Your task to perform on an android device: turn on priority inbox in the gmail app Image 0: 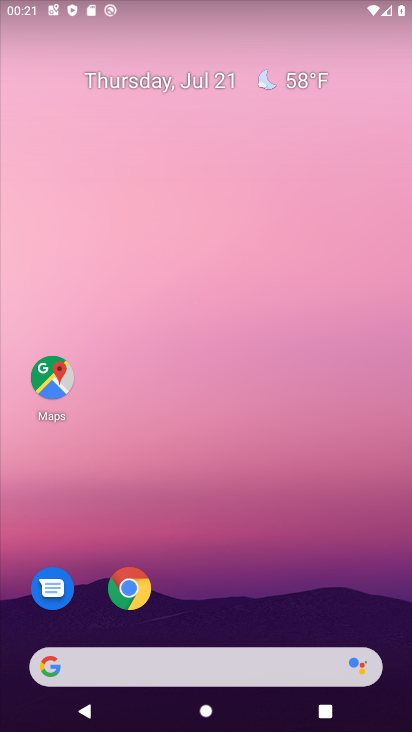
Step 0: drag from (252, 606) to (217, 172)
Your task to perform on an android device: turn on priority inbox in the gmail app Image 1: 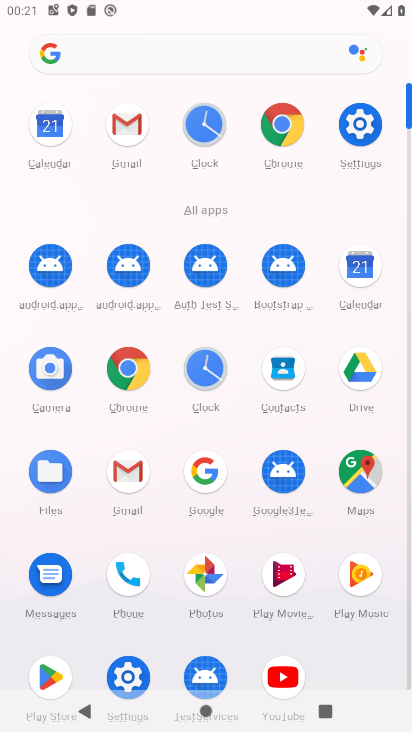
Step 1: click (134, 481)
Your task to perform on an android device: turn on priority inbox in the gmail app Image 2: 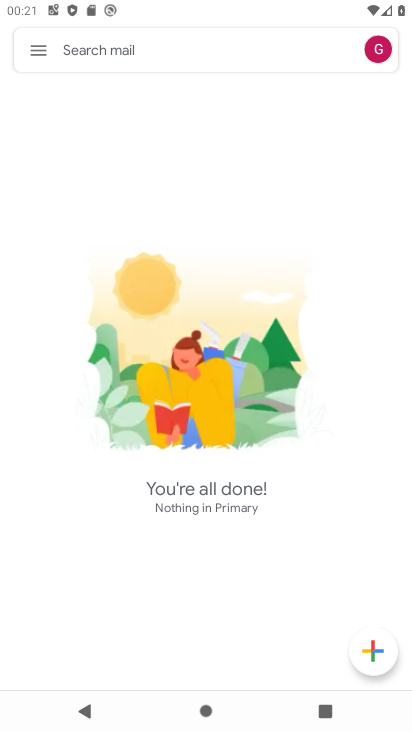
Step 2: click (42, 52)
Your task to perform on an android device: turn on priority inbox in the gmail app Image 3: 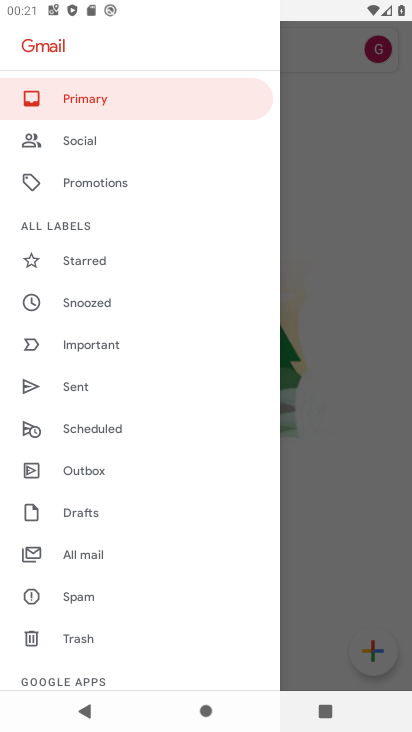
Step 3: drag from (103, 486) to (113, 358)
Your task to perform on an android device: turn on priority inbox in the gmail app Image 4: 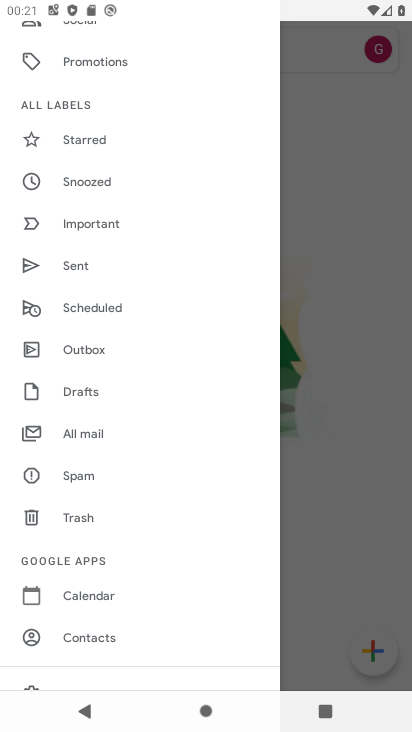
Step 4: drag from (106, 628) to (138, 294)
Your task to perform on an android device: turn on priority inbox in the gmail app Image 5: 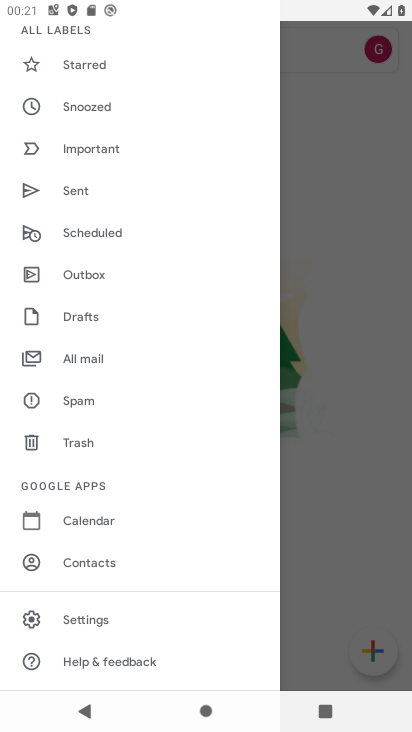
Step 5: click (94, 622)
Your task to perform on an android device: turn on priority inbox in the gmail app Image 6: 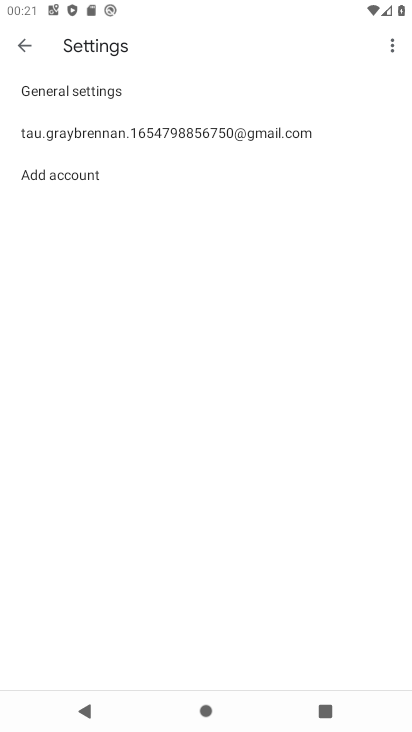
Step 6: click (124, 143)
Your task to perform on an android device: turn on priority inbox in the gmail app Image 7: 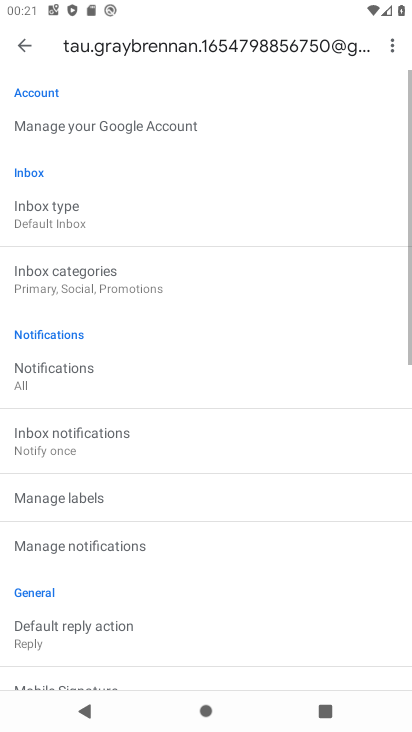
Step 7: click (82, 221)
Your task to perform on an android device: turn on priority inbox in the gmail app Image 8: 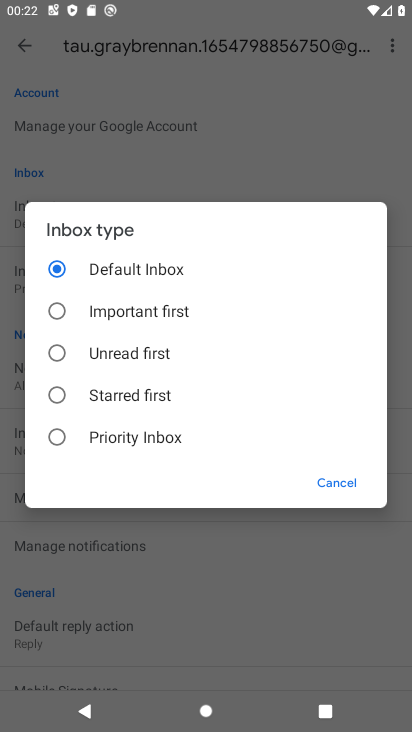
Step 8: click (94, 440)
Your task to perform on an android device: turn on priority inbox in the gmail app Image 9: 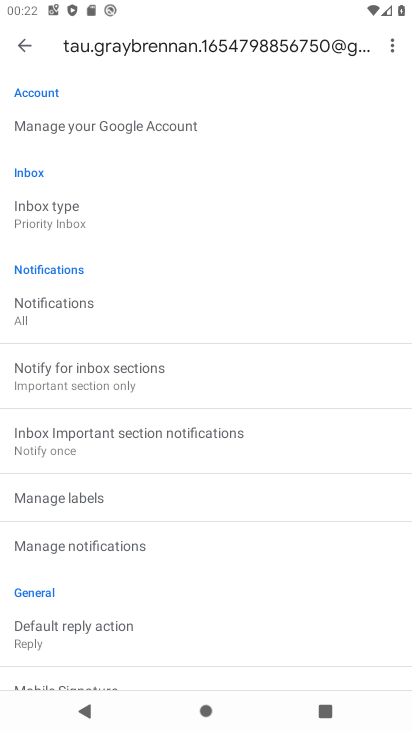
Step 9: task complete